Your task to perform on an android device: toggle show notifications on the lock screen Image 0: 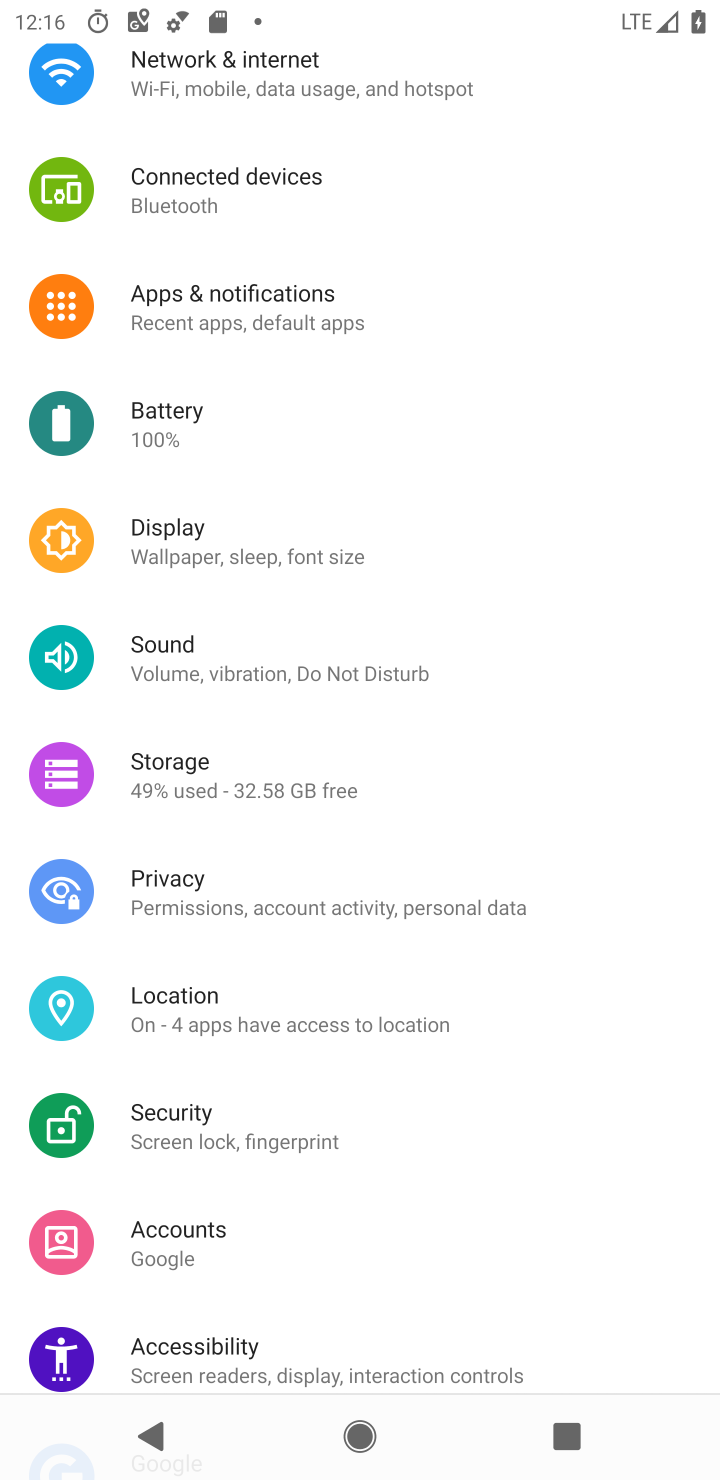
Step 0: click (249, 320)
Your task to perform on an android device: toggle show notifications on the lock screen Image 1: 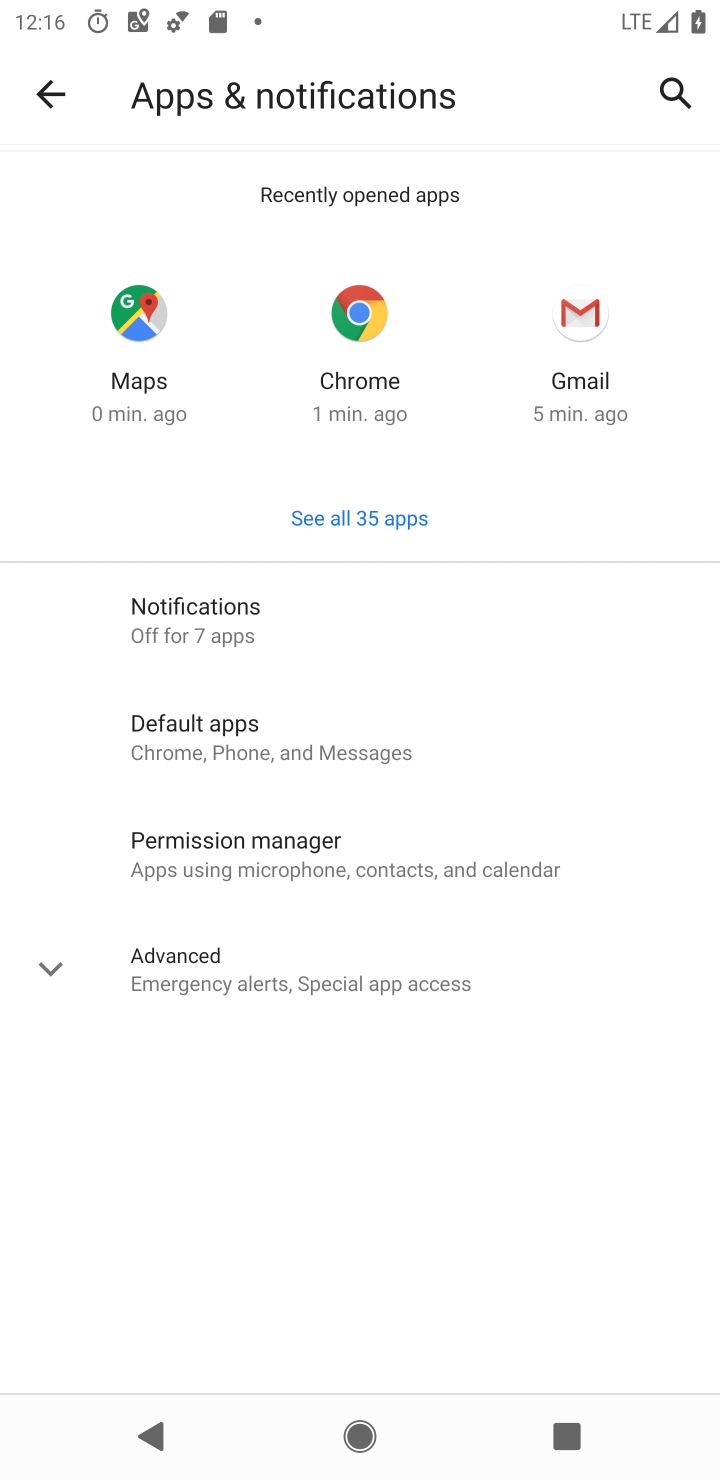
Step 1: click (240, 617)
Your task to perform on an android device: toggle show notifications on the lock screen Image 2: 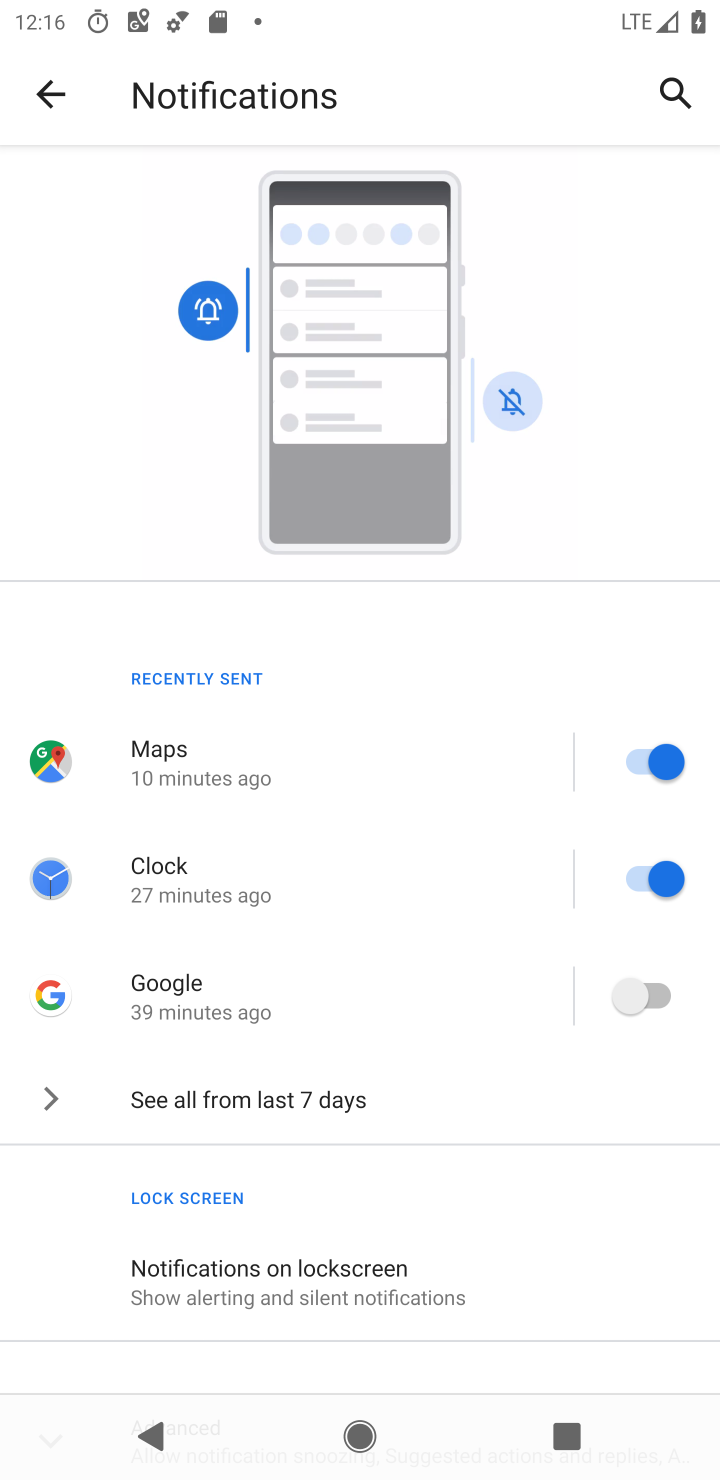
Step 2: drag from (263, 1233) to (271, 869)
Your task to perform on an android device: toggle show notifications on the lock screen Image 3: 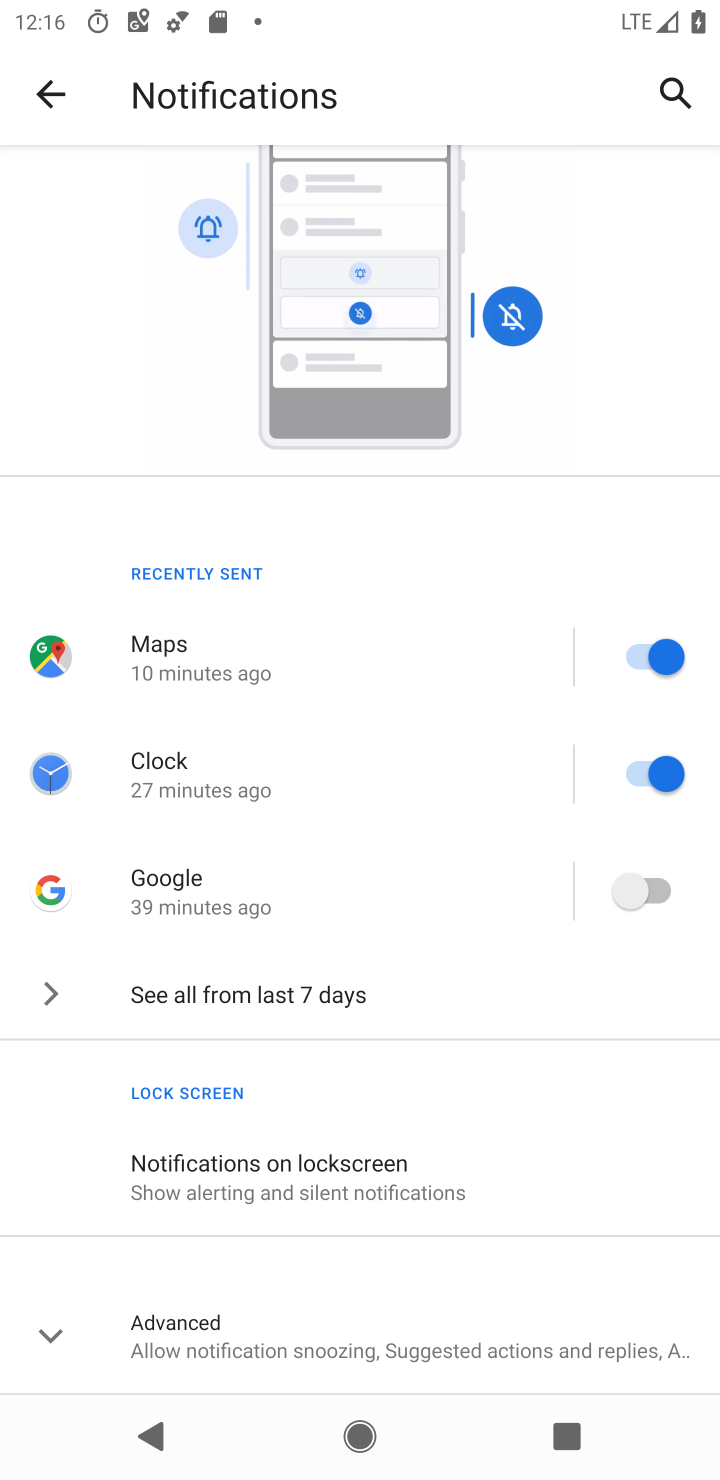
Step 3: click (209, 1178)
Your task to perform on an android device: toggle show notifications on the lock screen Image 4: 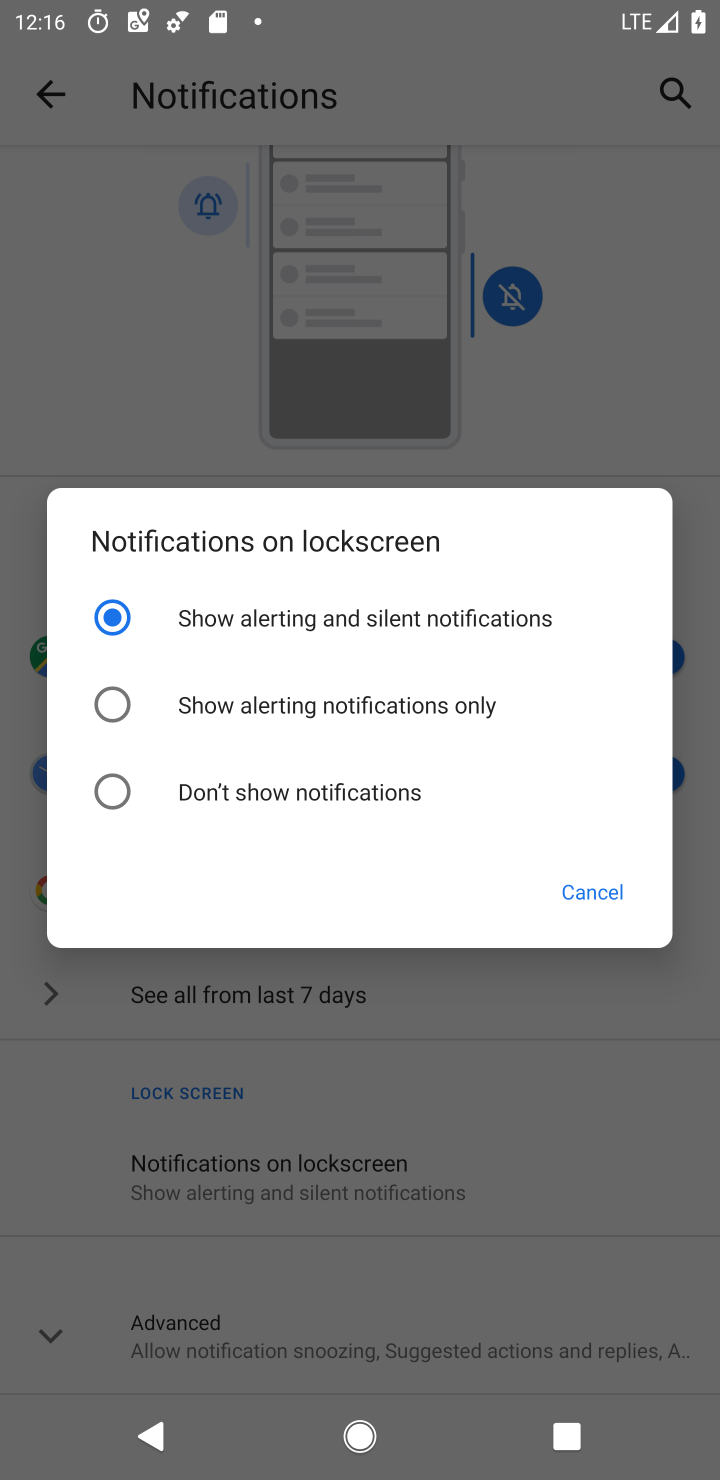
Step 4: click (121, 800)
Your task to perform on an android device: toggle show notifications on the lock screen Image 5: 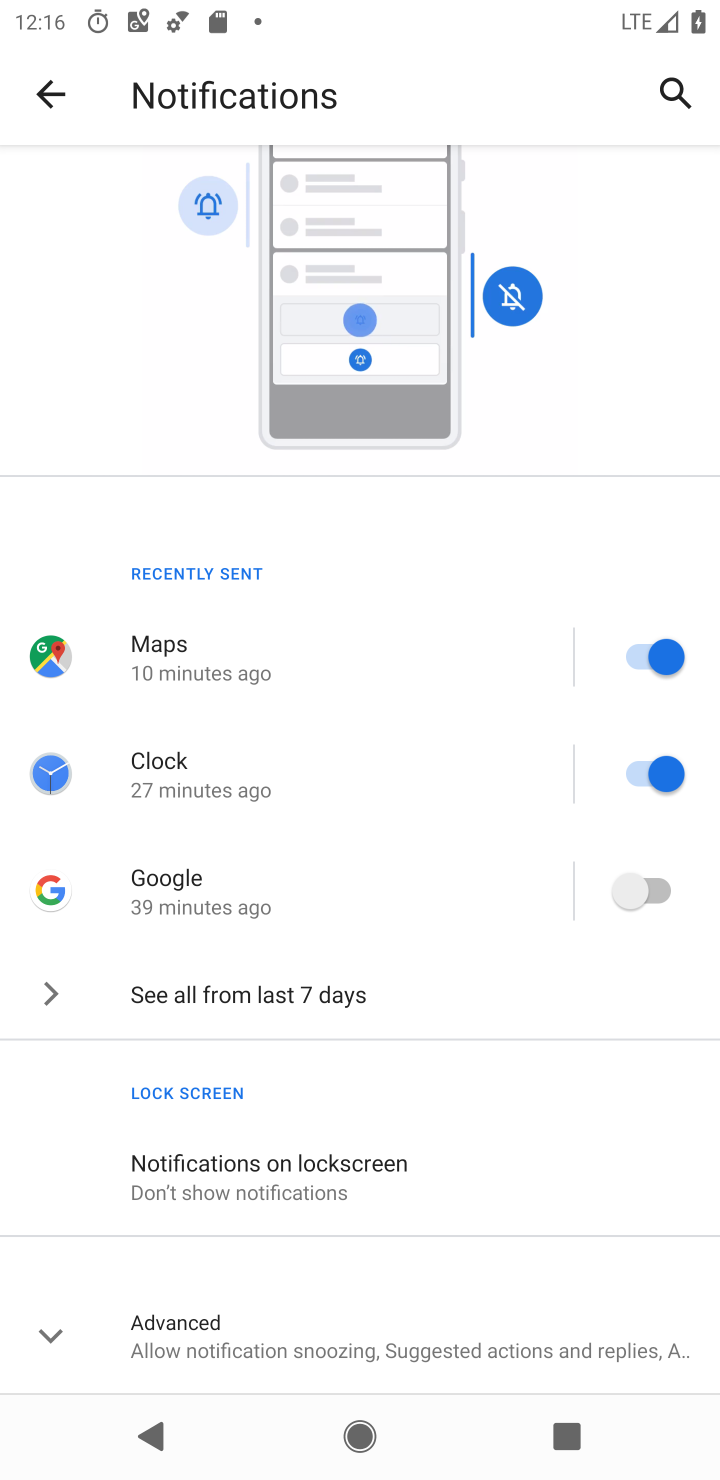
Step 5: task complete